Your task to perform on an android device: Clear all items from cart on newegg.com. Search for panasonic triple a on newegg.com, select the first entry, add it to the cart, then select checkout. Image 0: 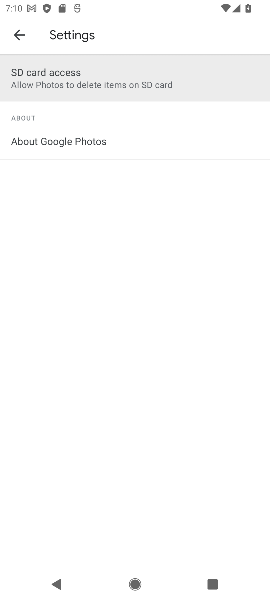
Step 0: press home button
Your task to perform on an android device: Clear all items from cart on newegg.com. Search for panasonic triple a on newegg.com, select the first entry, add it to the cart, then select checkout. Image 1: 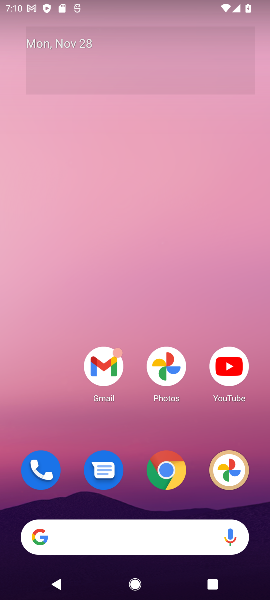
Step 1: click (124, 547)
Your task to perform on an android device: Clear all items from cart on newegg.com. Search for panasonic triple a on newegg.com, select the first entry, add it to the cart, then select checkout. Image 2: 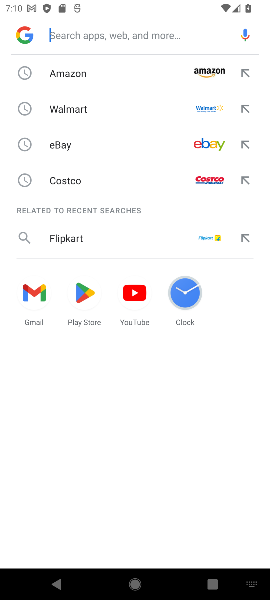
Step 2: press back button
Your task to perform on an android device: Clear all items from cart on newegg.com. Search for panasonic triple a on newegg.com, select the first entry, add it to the cart, then select checkout. Image 3: 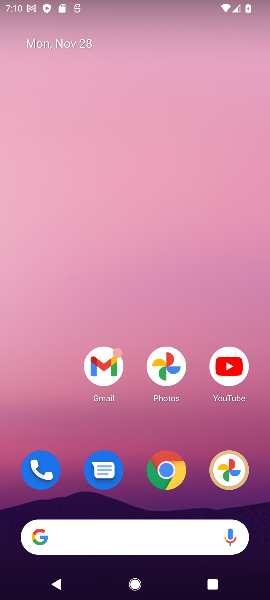
Step 3: click (165, 476)
Your task to perform on an android device: Clear all items from cart on newegg.com. Search for panasonic triple a on newegg.com, select the first entry, add it to the cart, then select checkout. Image 4: 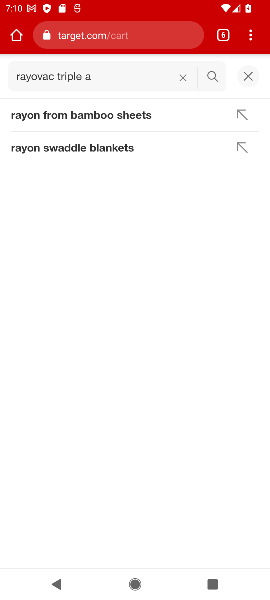
Step 4: click (82, 42)
Your task to perform on an android device: Clear all items from cart on newegg.com. Search for panasonic triple a on newegg.com, select the first entry, add it to the cart, then select checkout. Image 5: 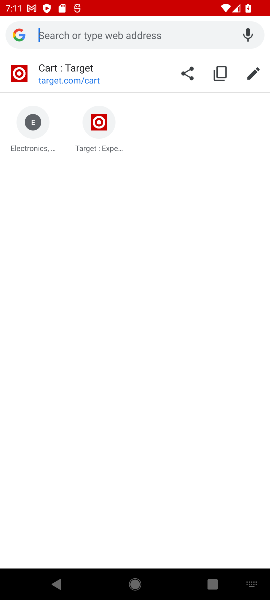
Step 5: type "newegg.com"
Your task to perform on an android device: Clear all items from cart on newegg.com. Search for panasonic triple a on newegg.com, select the first entry, add it to the cart, then select checkout. Image 6: 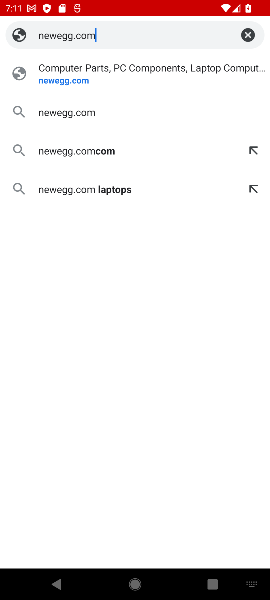
Step 6: click (55, 73)
Your task to perform on an android device: Clear all items from cart on newegg.com. Search for panasonic triple a on newegg.com, select the first entry, add it to the cart, then select checkout. Image 7: 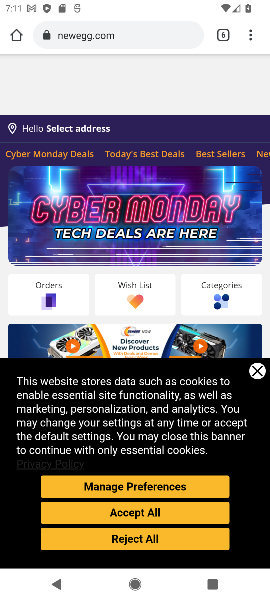
Step 7: click (214, 73)
Your task to perform on an android device: Clear all items from cart on newegg.com. Search for panasonic triple a on newegg.com, select the first entry, add it to the cart, then select checkout. Image 8: 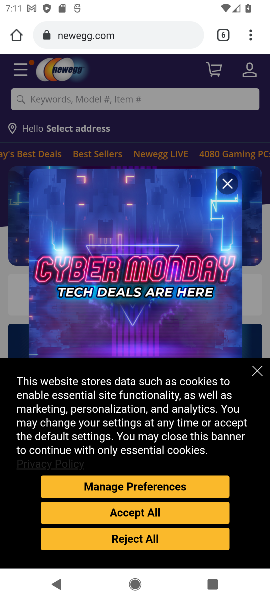
Step 8: click (224, 195)
Your task to perform on an android device: Clear all items from cart on newegg.com. Search for panasonic triple a on newegg.com, select the first entry, add it to the cart, then select checkout. Image 9: 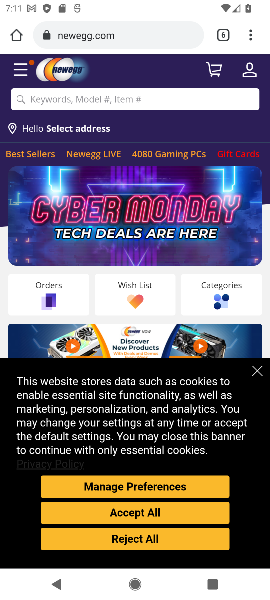
Step 9: click (213, 75)
Your task to perform on an android device: Clear all items from cart on newegg.com. Search for panasonic triple a on newegg.com, select the first entry, add it to the cart, then select checkout. Image 10: 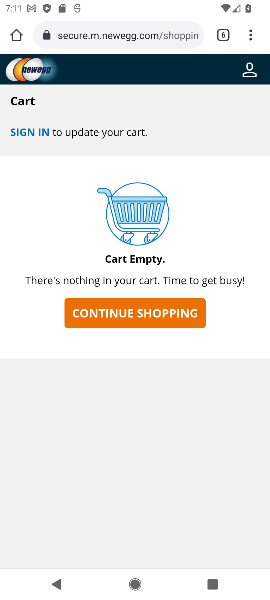
Step 10: click (129, 311)
Your task to perform on an android device: Clear all items from cart on newegg.com. Search for panasonic triple a on newegg.com, select the first entry, add it to the cart, then select checkout. Image 11: 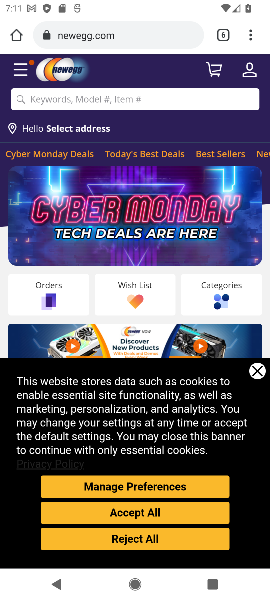
Step 11: click (83, 105)
Your task to perform on an android device: Clear all items from cart on newegg.com. Search for panasonic triple a on newegg.com, select the first entry, add it to the cart, then select checkout. Image 12: 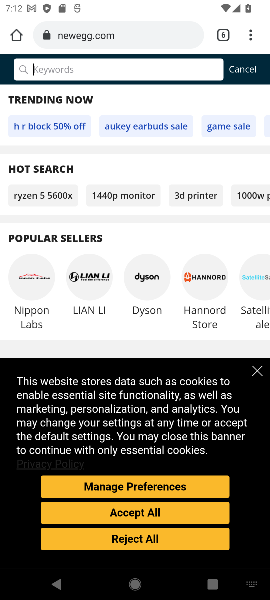
Step 12: type "panasonic triple a"
Your task to perform on an android device: Clear all items from cart on newegg.com. Search for panasonic triple a on newegg.com, select the first entry, add it to the cart, then select checkout. Image 13: 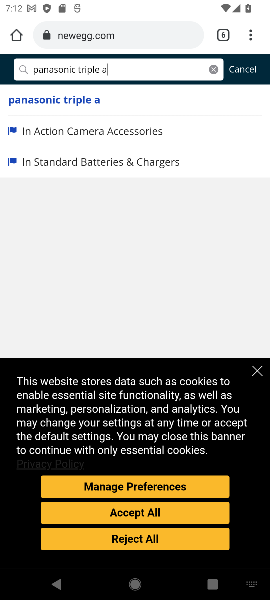
Step 13: click (254, 378)
Your task to perform on an android device: Clear all items from cart on newegg.com. Search for panasonic triple a on newegg.com, select the first entry, add it to the cart, then select checkout. Image 14: 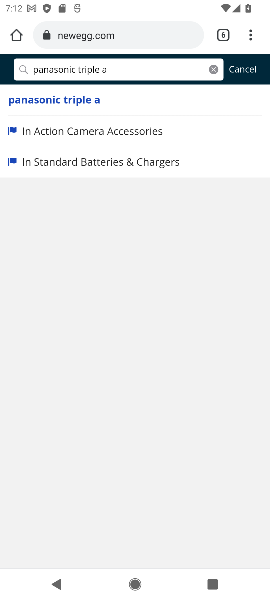
Step 14: click (75, 167)
Your task to perform on an android device: Clear all items from cart on newegg.com. Search for panasonic triple a on newegg.com, select the first entry, add it to the cart, then select checkout. Image 15: 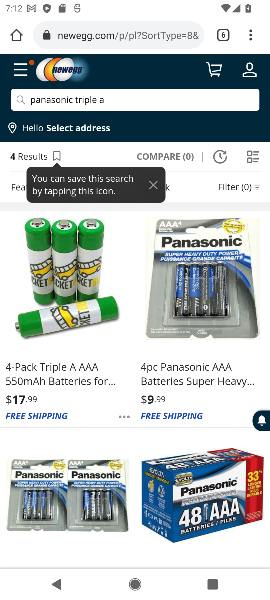
Step 15: click (58, 322)
Your task to perform on an android device: Clear all items from cart on newegg.com. Search for panasonic triple a on newegg.com, select the first entry, add it to the cart, then select checkout. Image 16: 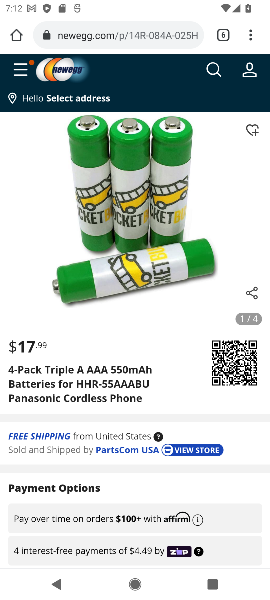
Step 16: click (125, 545)
Your task to perform on an android device: Clear all items from cart on newegg.com. Search for panasonic triple a on newegg.com, select the first entry, add it to the cart, then select checkout. Image 17: 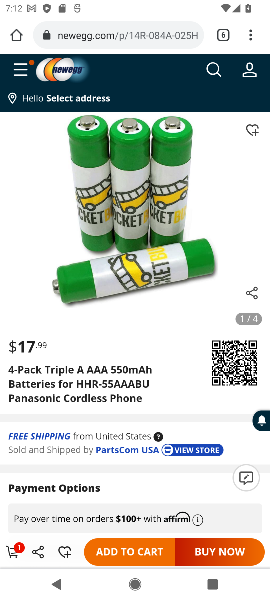
Step 17: click (11, 552)
Your task to perform on an android device: Clear all items from cart on newegg.com. Search for panasonic triple a on newegg.com, select the first entry, add it to the cart, then select checkout. Image 18: 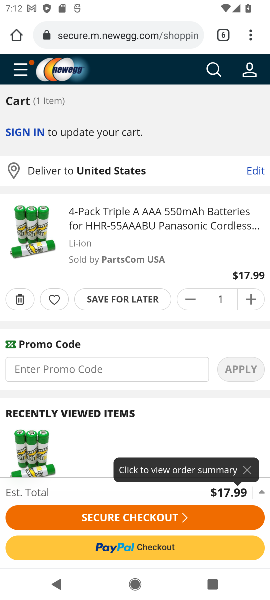
Step 18: click (137, 435)
Your task to perform on an android device: Clear all items from cart on newegg.com. Search for panasonic triple a on newegg.com, select the first entry, add it to the cart, then select checkout. Image 19: 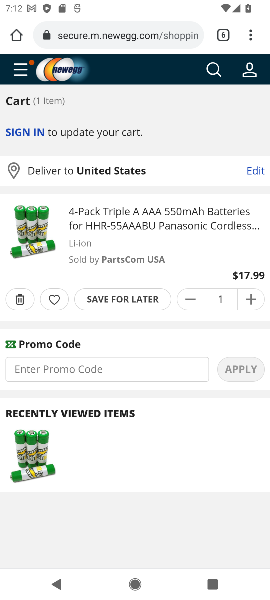
Step 19: drag from (159, 430) to (168, 189)
Your task to perform on an android device: Clear all items from cart on newegg.com. Search for panasonic triple a on newegg.com, select the first entry, add it to the cart, then select checkout. Image 20: 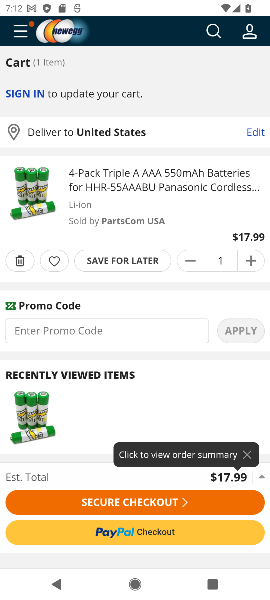
Step 20: click (131, 504)
Your task to perform on an android device: Clear all items from cart on newegg.com. Search for panasonic triple a on newegg.com, select the first entry, add it to the cart, then select checkout. Image 21: 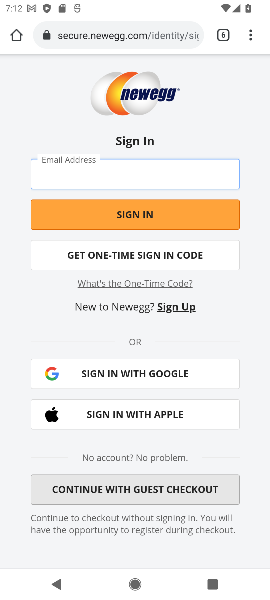
Step 21: task complete